Your task to perform on an android device: open app "Cash App" Image 0: 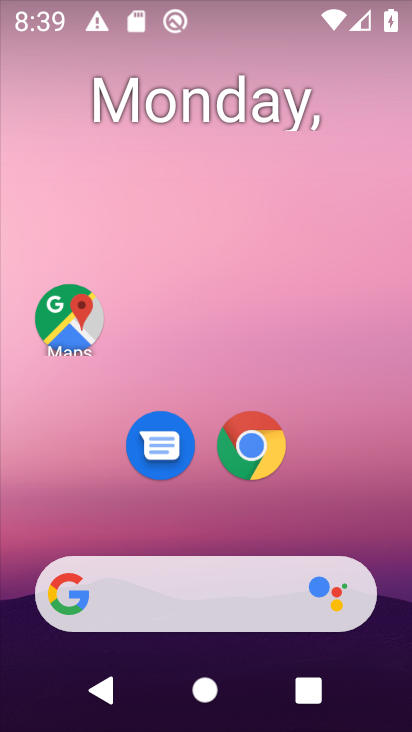
Step 0: drag from (389, 622) to (213, 3)
Your task to perform on an android device: open app "Cash App" Image 1: 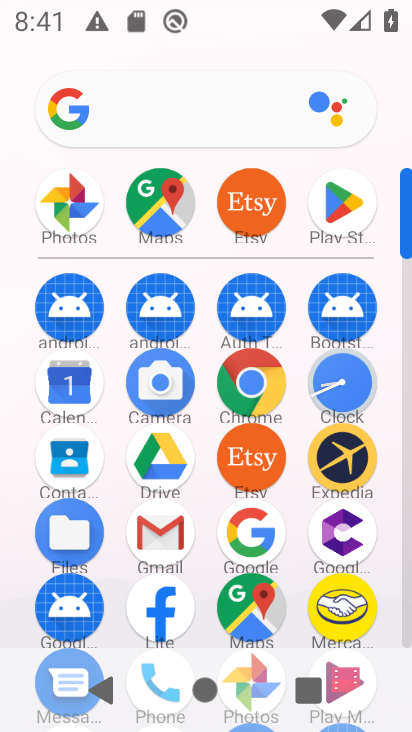
Step 1: click (332, 207)
Your task to perform on an android device: open app "Cash App" Image 2: 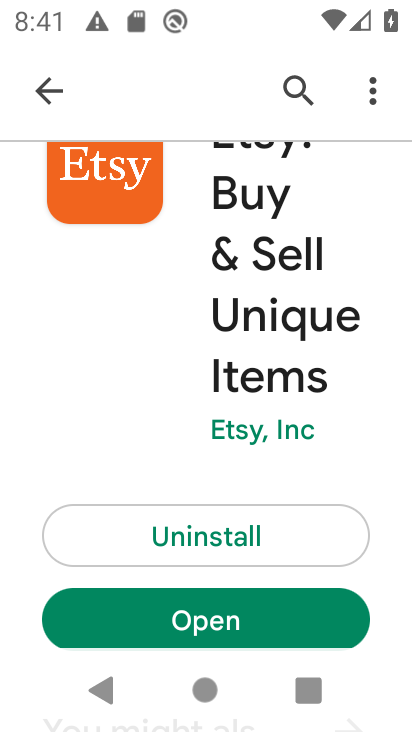
Step 2: press back button
Your task to perform on an android device: open app "Cash App" Image 3: 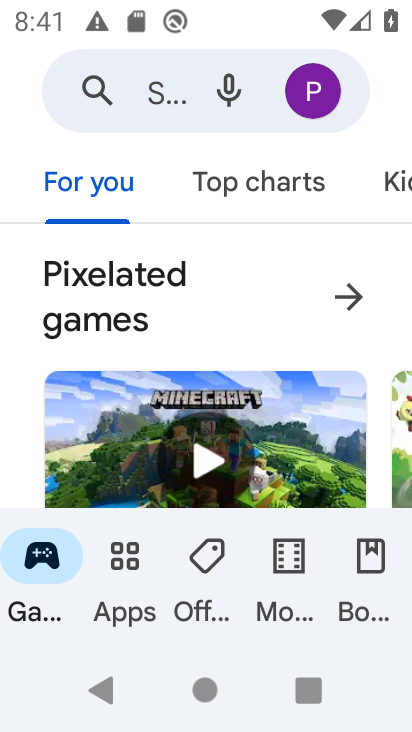
Step 3: click (142, 89)
Your task to perform on an android device: open app "Cash App" Image 4: 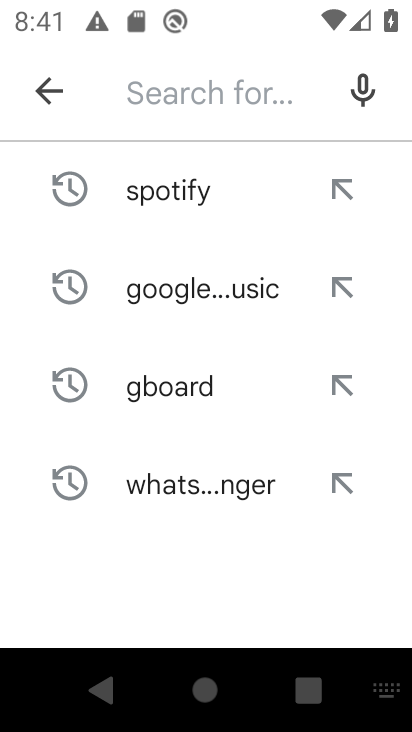
Step 4: type "Cash App"
Your task to perform on an android device: open app "Cash App" Image 5: 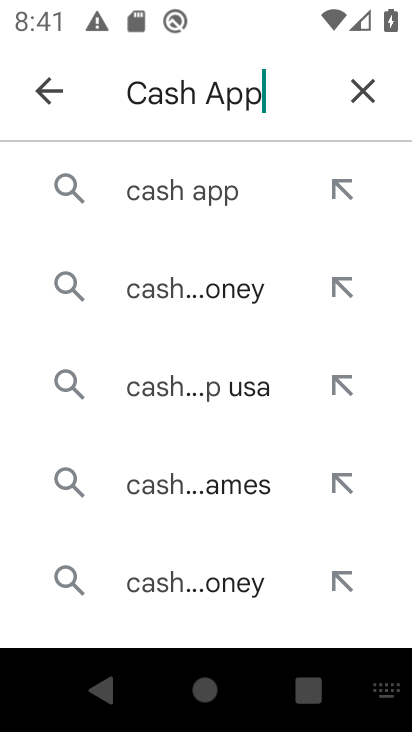
Step 5: click (198, 192)
Your task to perform on an android device: open app "Cash App" Image 6: 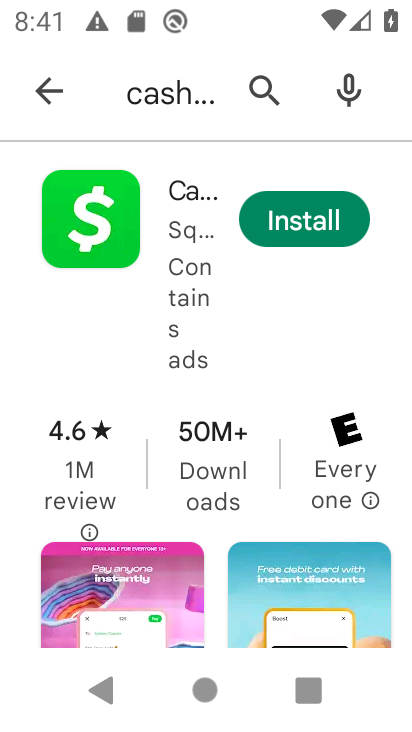
Step 6: task complete